Your task to perform on an android device: open app "Microsoft Authenticator" (install if not already installed), go to login, and select forgot password Image 0: 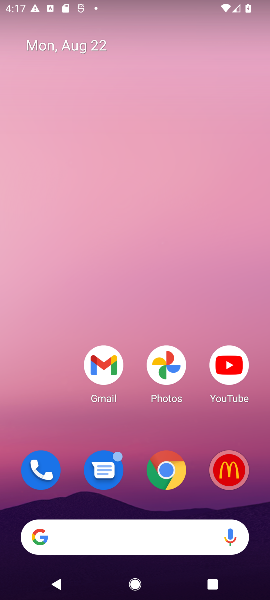
Step 0: drag from (94, 501) to (140, 116)
Your task to perform on an android device: open app "Microsoft Authenticator" (install if not already installed), go to login, and select forgot password Image 1: 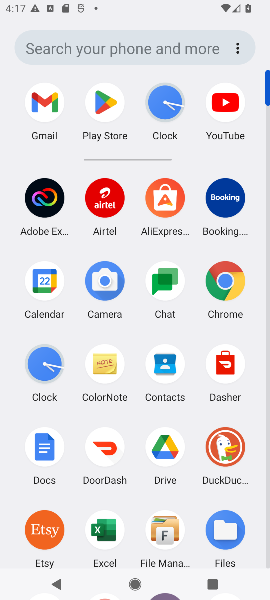
Step 1: click (109, 100)
Your task to perform on an android device: open app "Microsoft Authenticator" (install if not already installed), go to login, and select forgot password Image 2: 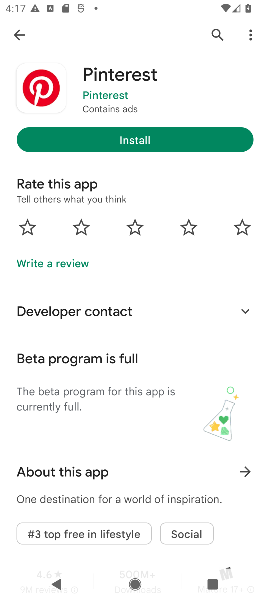
Step 2: click (14, 34)
Your task to perform on an android device: open app "Microsoft Authenticator" (install if not already installed), go to login, and select forgot password Image 3: 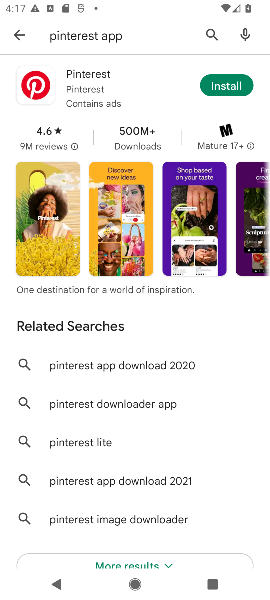
Step 3: click (14, 34)
Your task to perform on an android device: open app "Microsoft Authenticator" (install if not already installed), go to login, and select forgot password Image 4: 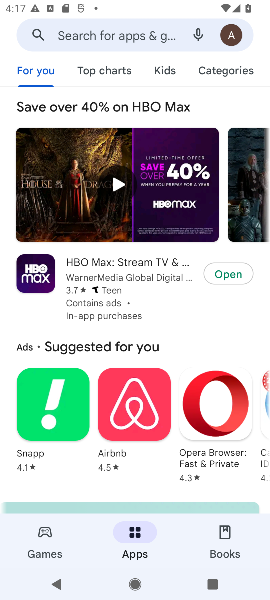
Step 4: click (91, 28)
Your task to perform on an android device: open app "Microsoft Authenticator" (install if not already installed), go to login, and select forgot password Image 5: 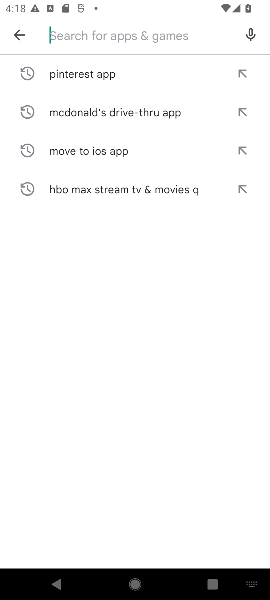
Step 5: type "Microsoft Authenticator "
Your task to perform on an android device: open app "Microsoft Authenticator" (install if not already installed), go to login, and select forgot password Image 6: 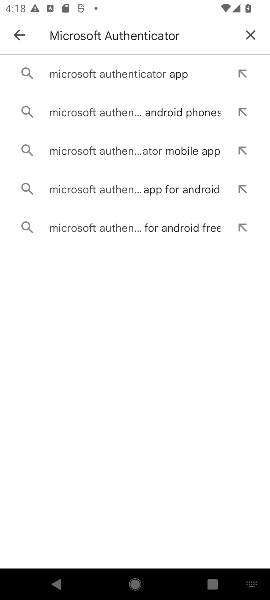
Step 6: click (98, 75)
Your task to perform on an android device: open app "Microsoft Authenticator" (install if not already installed), go to login, and select forgot password Image 7: 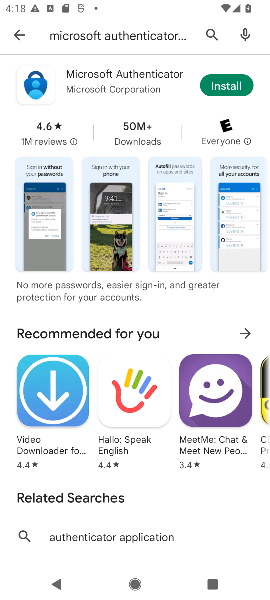
Step 7: click (226, 85)
Your task to perform on an android device: open app "Microsoft Authenticator" (install if not already installed), go to login, and select forgot password Image 8: 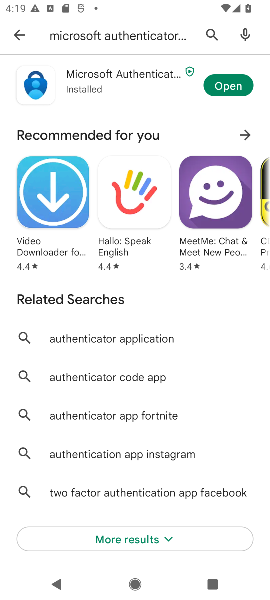
Step 8: task complete